Your task to perform on an android device: install app "Lyft - Rideshare, Bikes, Scooters & Transit" Image 0: 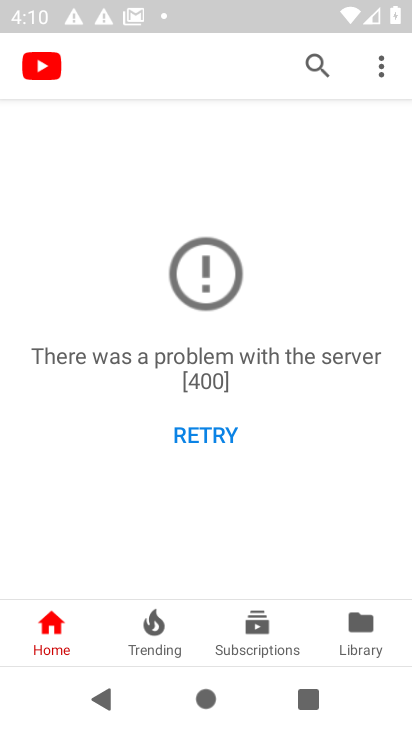
Step 0: press home button
Your task to perform on an android device: install app "Lyft - Rideshare, Bikes, Scooters & Transit" Image 1: 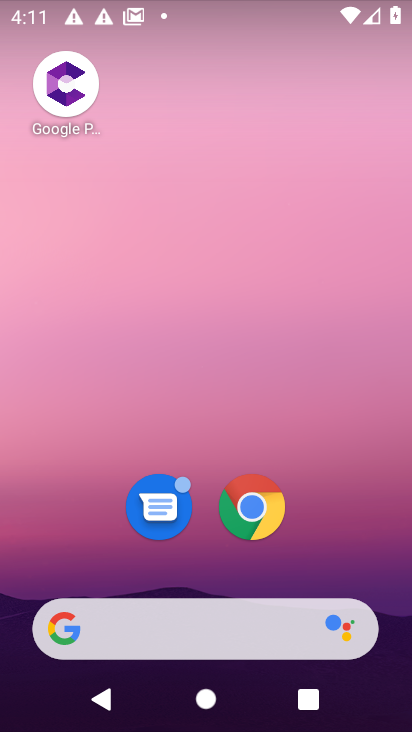
Step 1: drag from (315, 603) to (296, 0)
Your task to perform on an android device: install app "Lyft - Rideshare, Bikes, Scooters & Transit" Image 2: 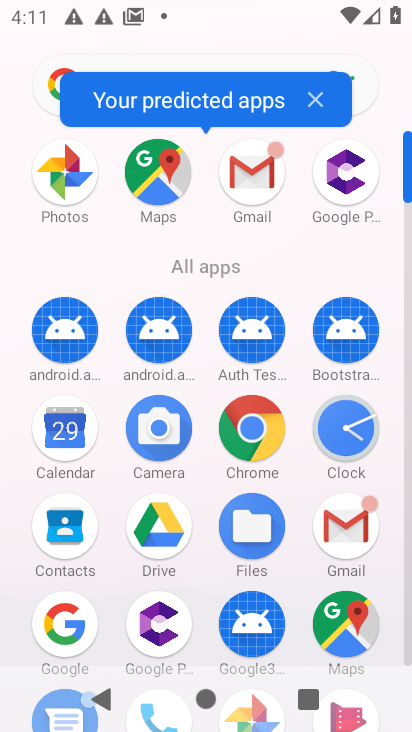
Step 2: drag from (408, 539) to (408, 489)
Your task to perform on an android device: install app "Lyft - Rideshare, Bikes, Scooters & Transit" Image 3: 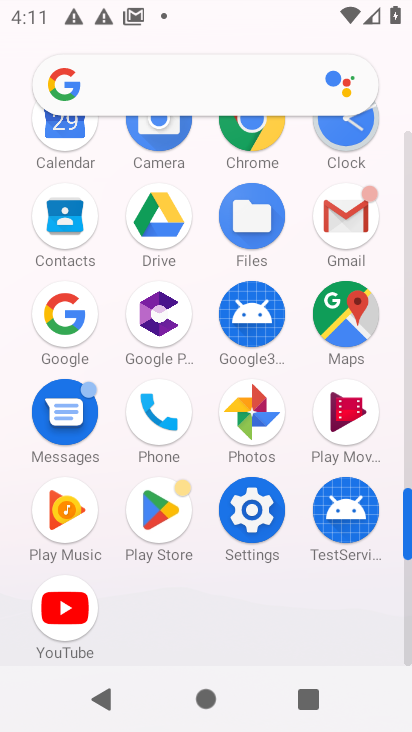
Step 3: click (165, 518)
Your task to perform on an android device: install app "Lyft - Rideshare, Bikes, Scooters & Transit" Image 4: 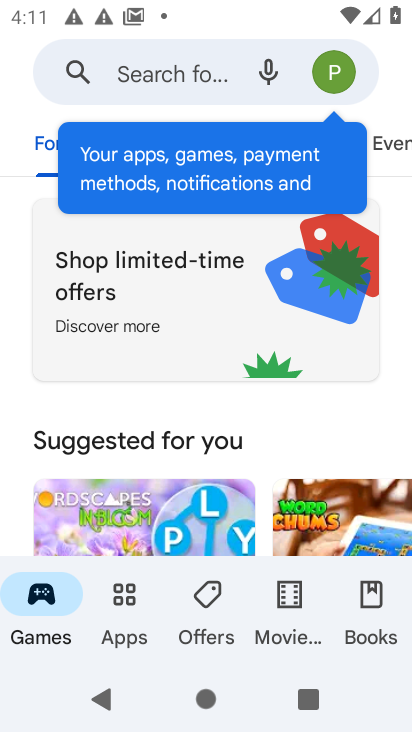
Step 4: click (118, 73)
Your task to perform on an android device: install app "Lyft - Rideshare, Bikes, Scooters & Transit" Image 5: 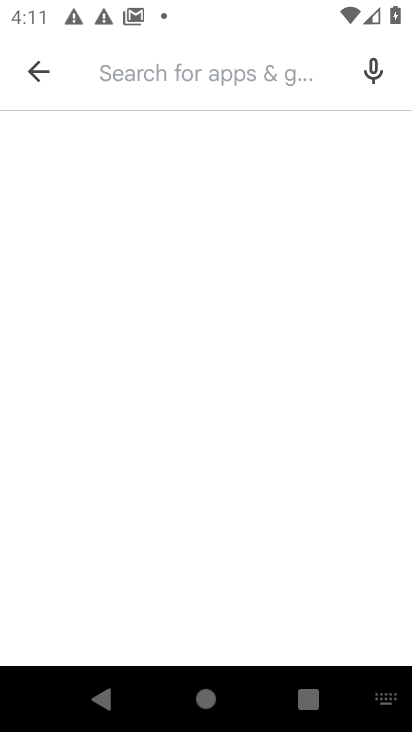
Step 5: type "Lyft - Rideshare, Bikes, Scooters & Transit"
Your task to perform on an android device: install app "Lyft - Rideshare, Bikes, Scooters & Transit" Image 6: 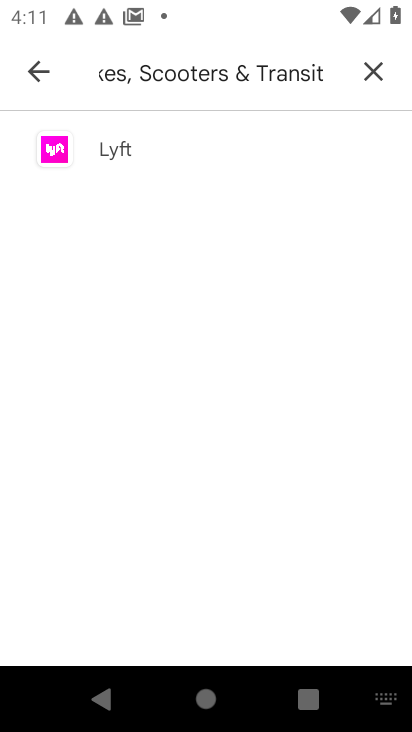
Step 6: click (105, 151)
Your task to perform on an android device: install app "Lyft - Rideshare, Bikes, Scooters & Transit" Image 7: 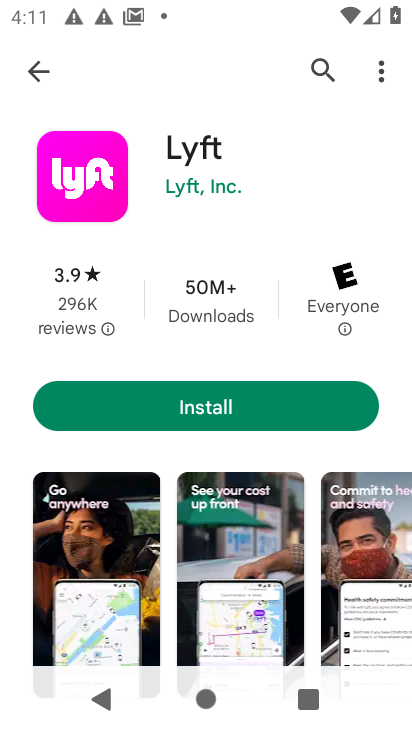
Step 7: click (200, 401)
Your task to perform on an android device: install app "Lyft - Rideshare, Bikes, Scooters & Transit" Image 8: 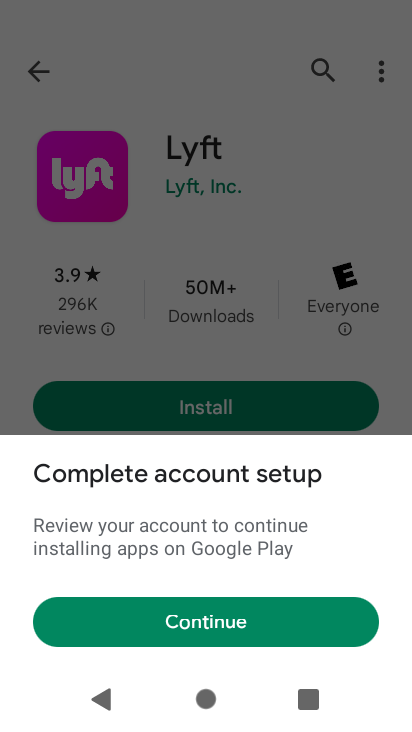
Step 8: click (186, 614)
Your task to perform on an android device: install app "Lyft - Rideshare, Bikes, Scooters & Transit" Image 9: 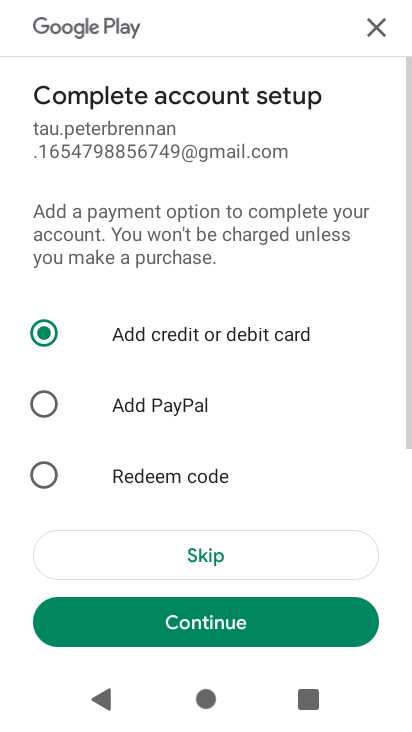
Step 9: click (173, 540)
Your task to perform on an android device: install app "Lyft - Rideshare, Bikes, Scooters & Transit" Image 10: 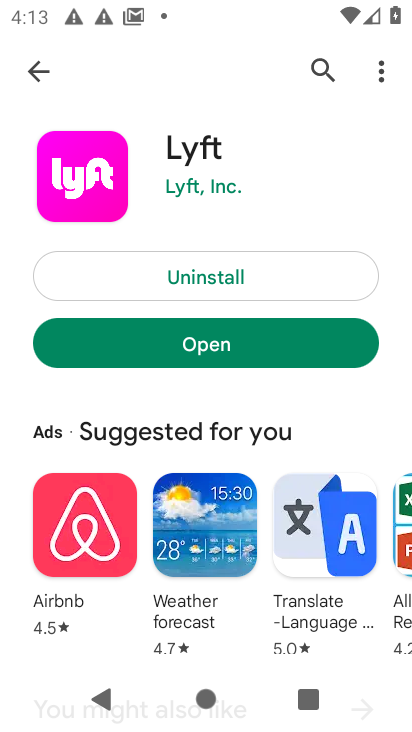
Step 10: task complete